Your task to perform on an android device: What's the weather going to be tomorrow? Image 0: 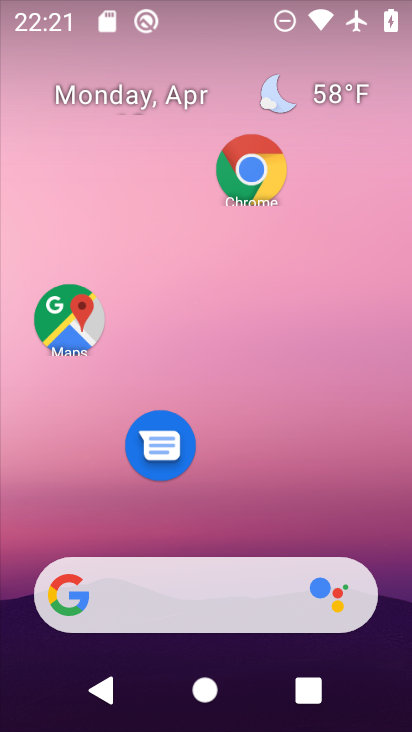
Step 0: drag from (184, 449) to (184, 189)
Your task to perform on an android device: What's the weather going to be tomorrow? Image 1: 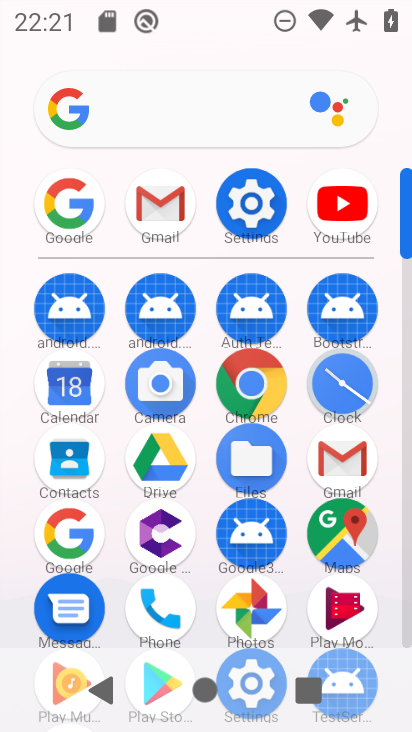
Step 1: click (92, 202)
Your task to perform on an android device: What's the weather going to be tomorrow? Image 2: 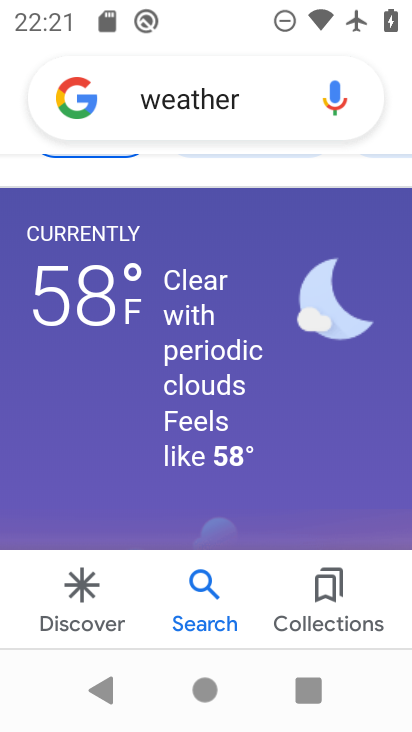
Step 2: drag from (253, 253) to (268, 456)
Your task to perform on an android device: What's the weather going to be tomorrow? Image 3: 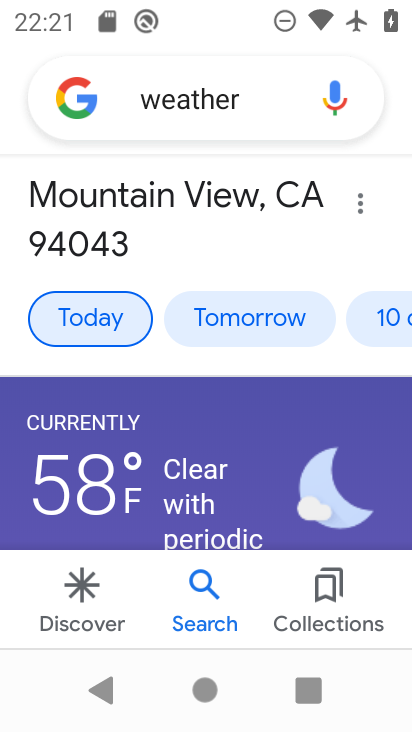
Step 3: click (294, 331)
Your task to perform on an android device: What's the weather going to be tomorrow? Image 4: 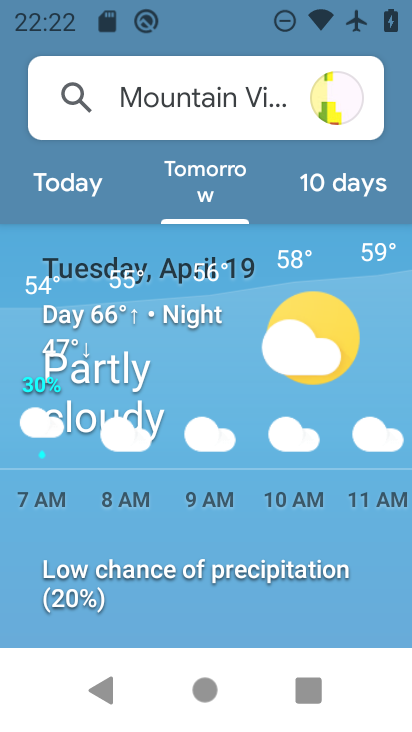
Step 4: task complete